Your task to perform on an android device: Add "razer thresher" to the cart on walmart.com Image 0: 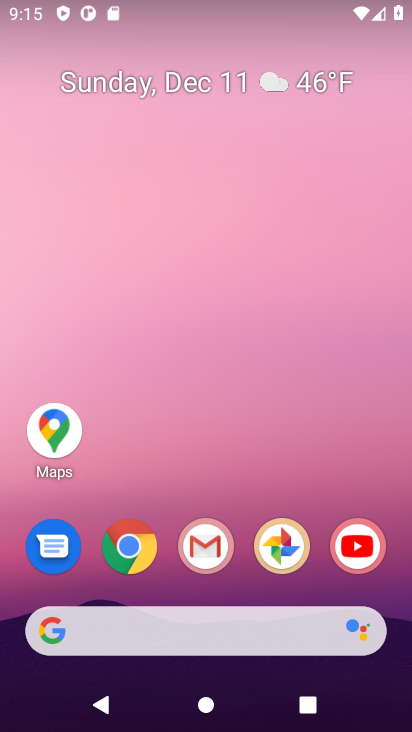
Step 0: click (134, 555)
Your task to perform on an android device: Add "razer thresher" to the cart on walmart.com Image 1: 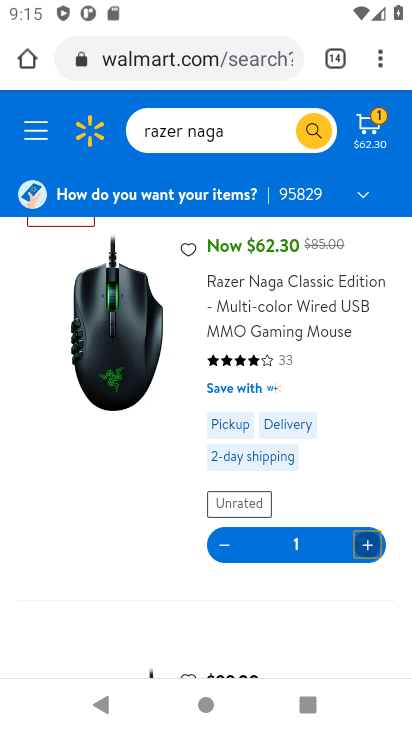
Step 1: click (212, 144)
Your task to perform on an android device: Add "razer thresher" to the cart on walmart.com Image 2: 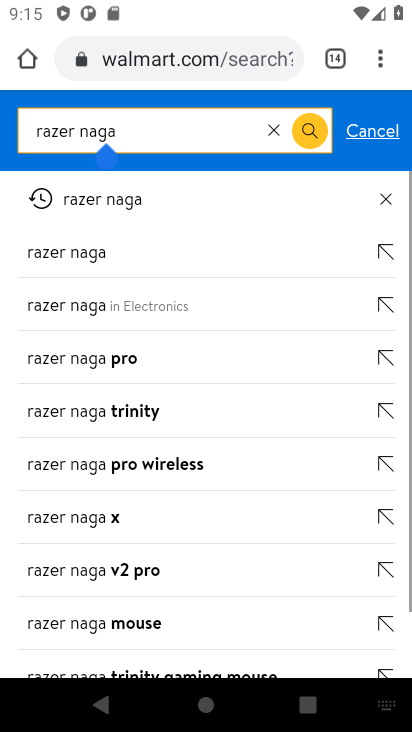
Step 2: click (280, 132)
Your task to perform on an android device: Add "razer thresher" to the cart on walmart.com Image 3: 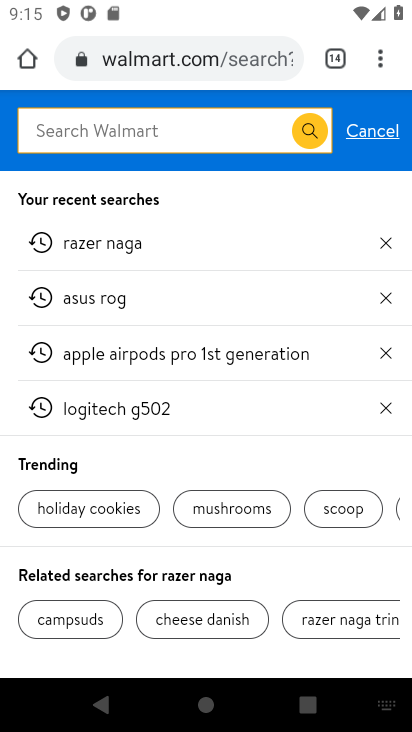
Step 3: type "razer thresher"
Your task to perform on an android device: Add "razer thresher" to the cart on walmart.com Image 4: 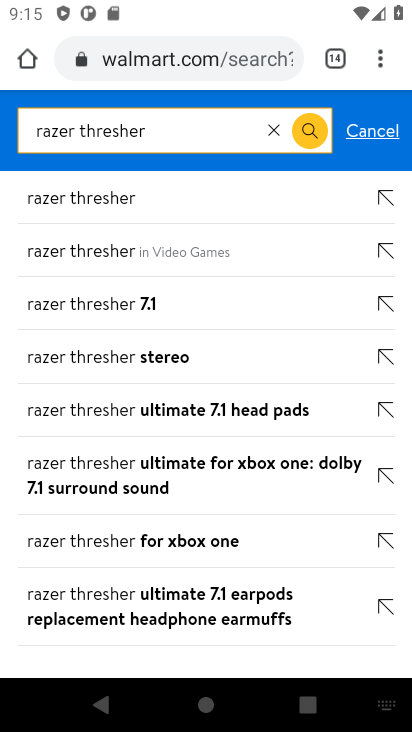
Step 4: click (88, 196)
Your task to perform on an android device: Add "razer thresher" to the cart on walmart.com Image 5: 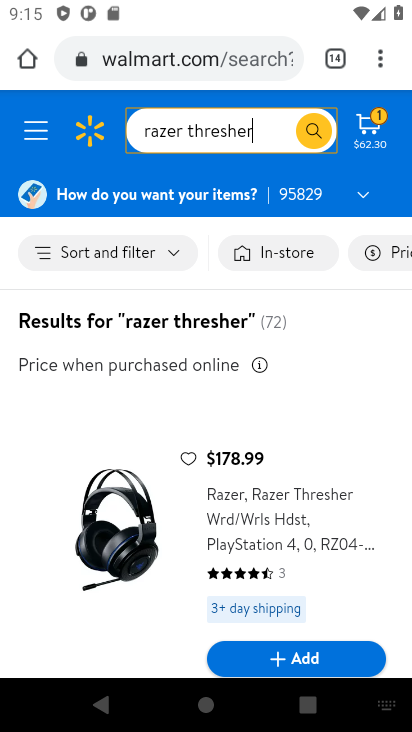
Step 5: drag from (159, 455) to (161, 260)
Your task to perform on an android device: Add "razer thresher" to the cart on walmart.com Image 6: 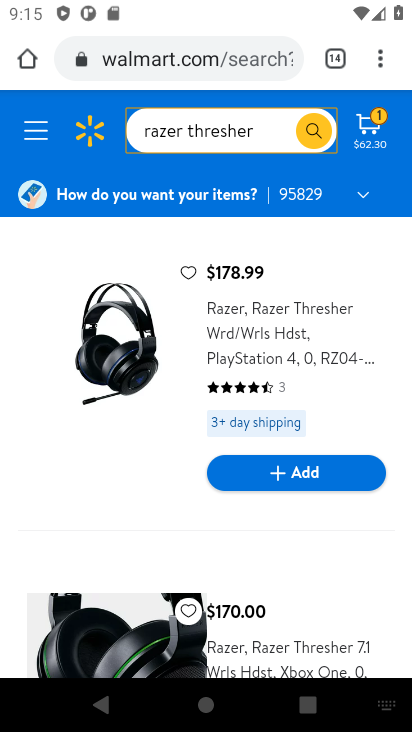
Step 6: click (281, 484)
Your task to perform on an android device: Add "razer thresher" to the cart on walmart.com Image 7: 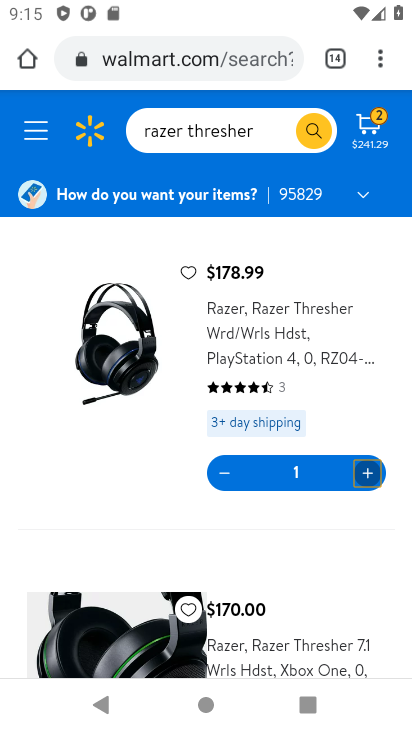
Step 7: task complete